Your task to perform on an android device: open chrome and create a bookmark for the current page Image 0: 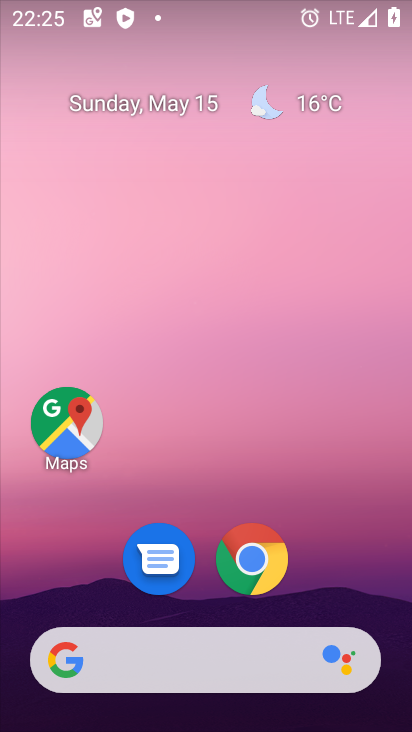
Step 0: click (264, 555)
Your task to perform on an android device: open chrome and create a bookmark for the current page Image 1: 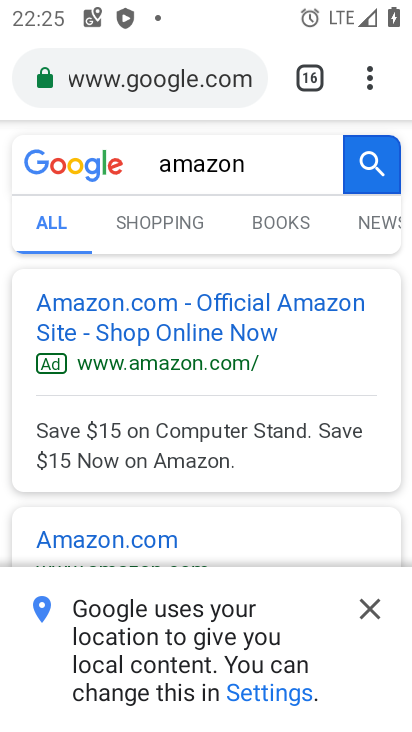
Step 1: click (371, 79)
Your task to perform on an android device: open chrome and create a bookmark for the current page Image 2: 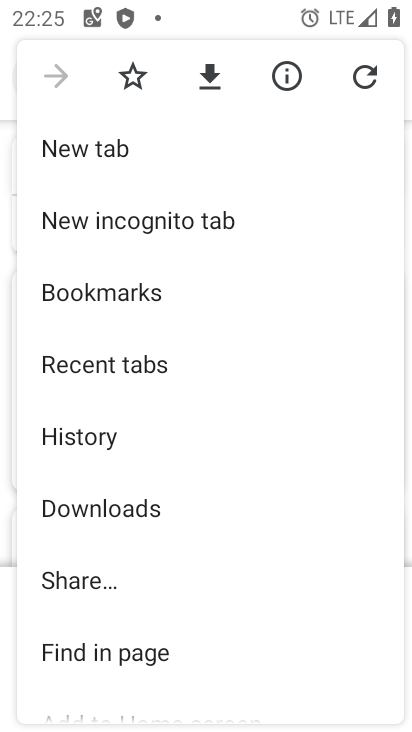
Step 2: drag from (227, 512) to (196, 204)
Your task to perform on an android device: open chrome and create a bookmark for the current page Image 3: 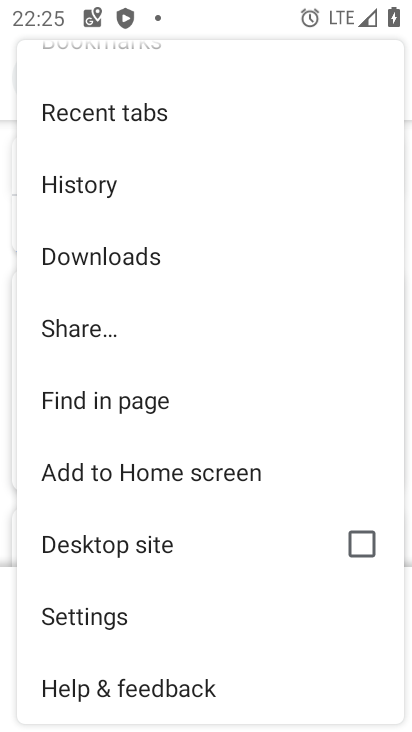
Step 3: click (88, 611)
Your task to perform on an android device: open chrome and create a bookmark for the current page Image 4: 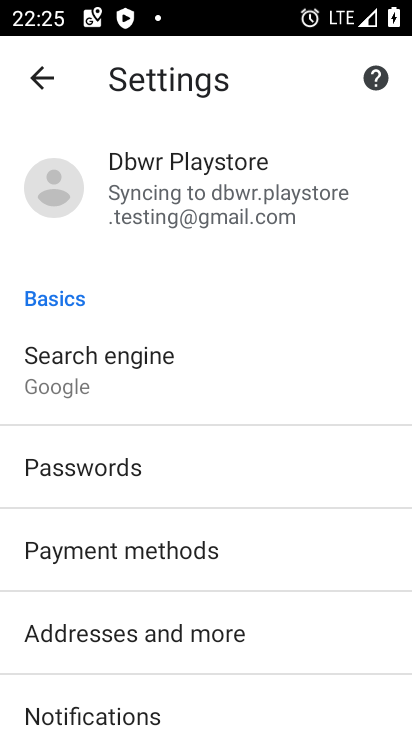
Step 4: drag from (239, 555) to (216, 298)
Your task to perform on an android device: open chrome and create a bookmark for the current page Image 5: 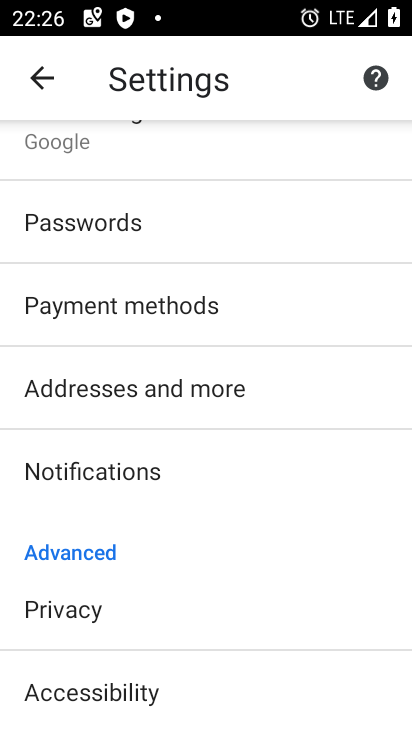
Step 5: drag from (201, 167) to (224, 712)
Your task to perform on an android device: open chrome and create a bookmark for the current page Image 6: 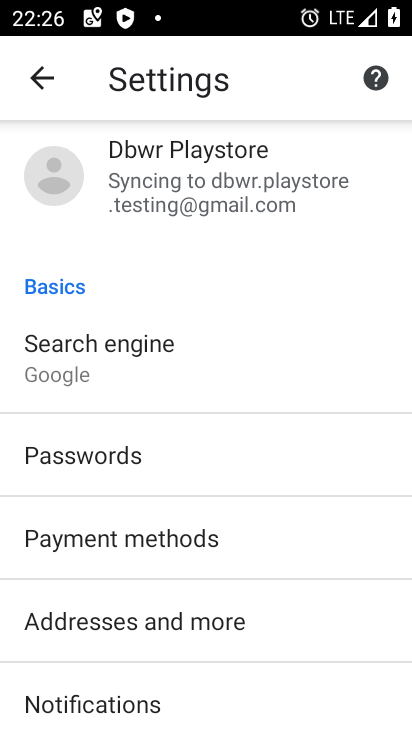
Step 6: click (35, 61)
Your task to perform on an android device: open chrome and create a bookmark for the current page Image 7: 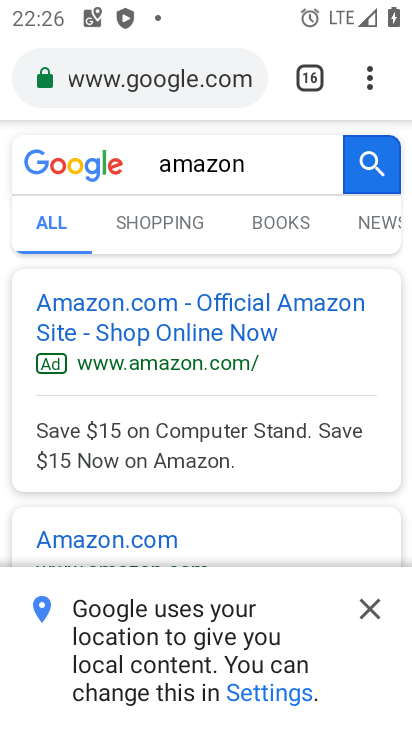
Step 7: click (374, 72)
Your task to perform on an android device: open chrome and create a bookmark for the current page Image 8: 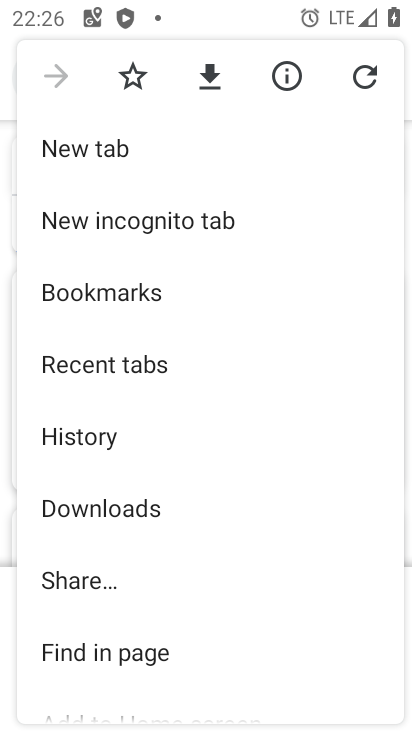
Step 8: click (134, 81)
Your task to perform on an android device: open chrome and create a bookmark for the current page Image 9: 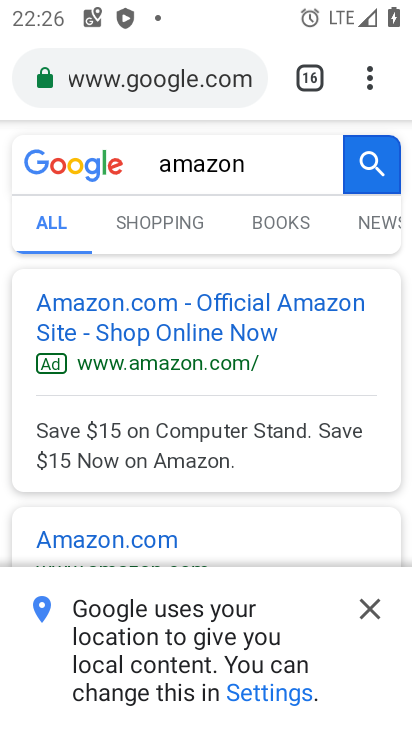
Step 9: task complete